Your task to perform on an android device: Go to ESPN.com Image 0: 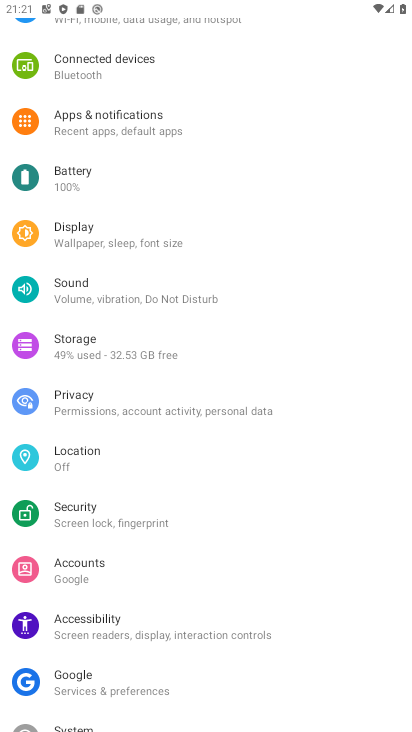
Step 0: press home button
Your task to perform on an android device: Go to ESPN.com Image 1: 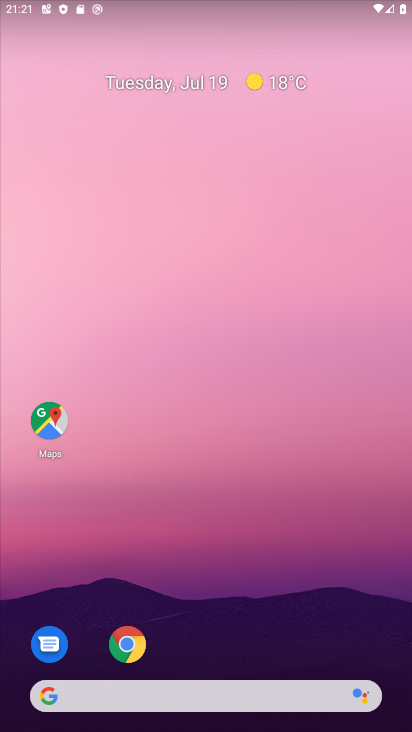
Step 1: click (121, 644)
Your task to perform on an android device: Go to ESPN.com Image 2: 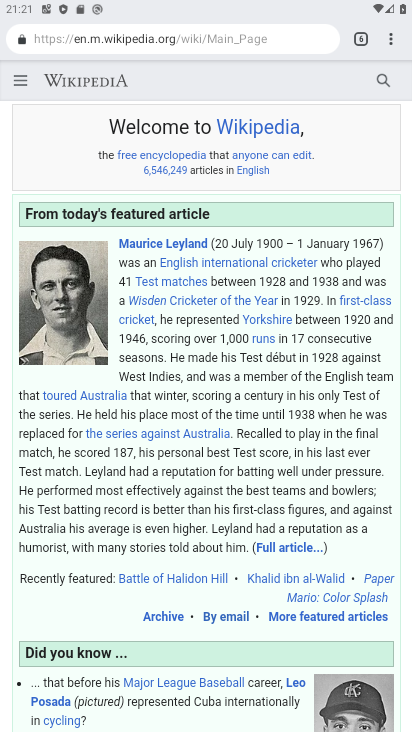
Step 2: click (393, 42)
Your task to perform on an android device: Go to ESPN.com Image 3: 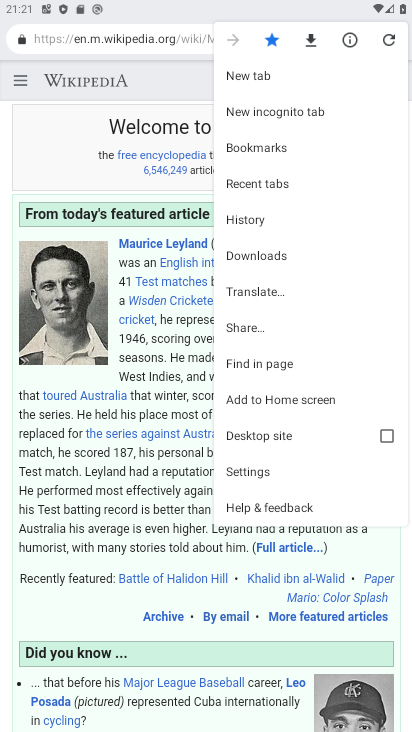
Step 3: click (254, 74)
Your task to perform on an android device: Go to ESPN.com Image 4: 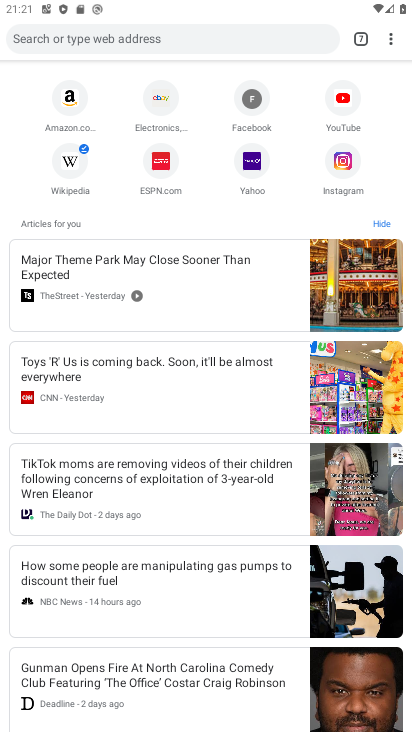
Step 4: click (160, 165)
Your task to perform on an android device: Go to ESPN.com Image 5: 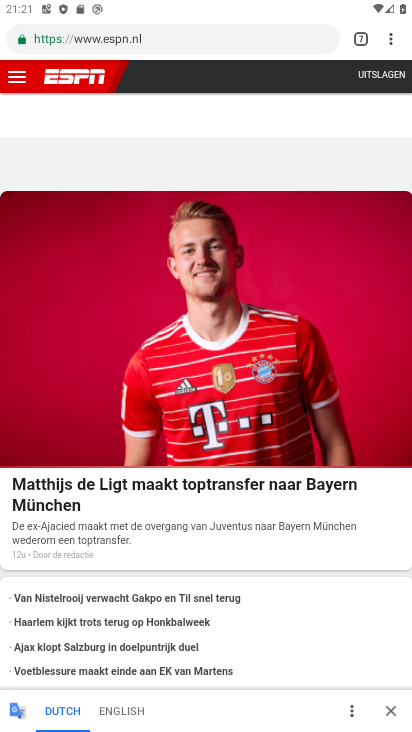
Step 5: task complete